Your task to perform on an android device: Open the stopwatch Image 0: 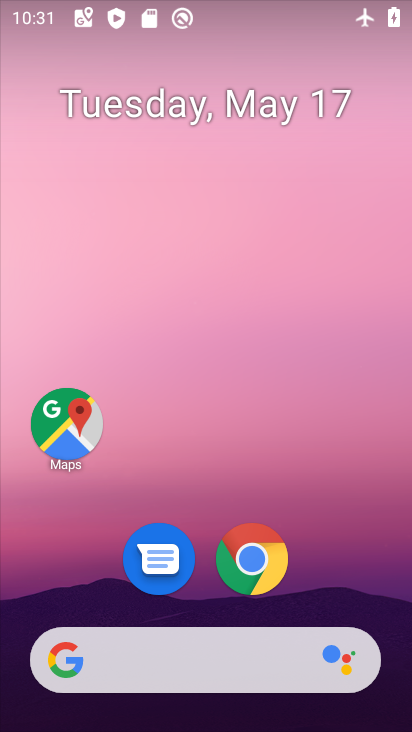
Step 0: drag from (243, 689) to (268, 15)
Your task to perform on an android device: Open the stopwatch Image 1: 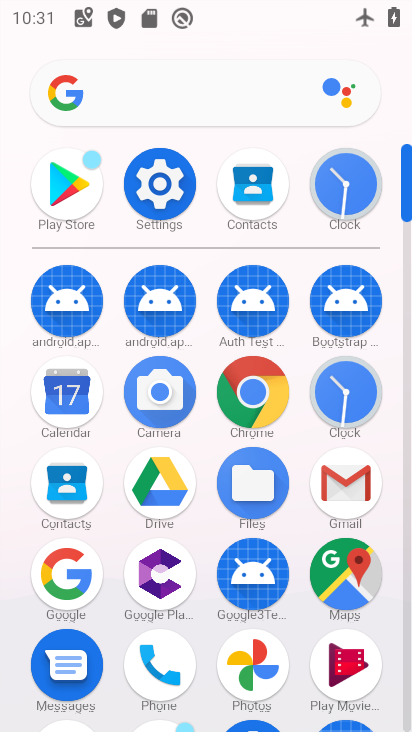
Step 1: click (324, 186)
Your task to perform on an android device: Open the stopwatch Image 2: 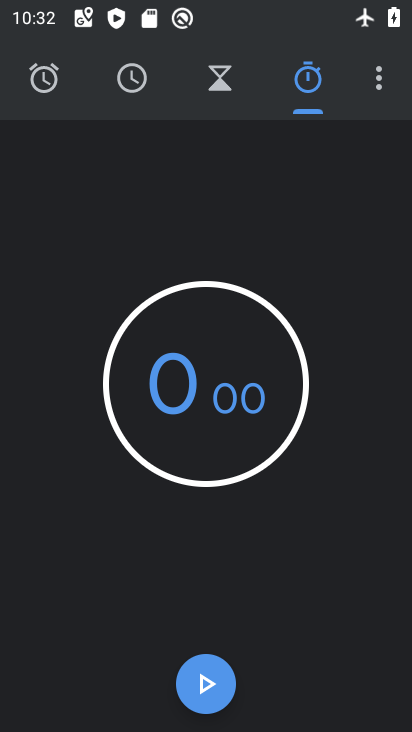
Step 2: task complete